Your task to perform on an android device: find snoozed emails in the gmail app Image 0: 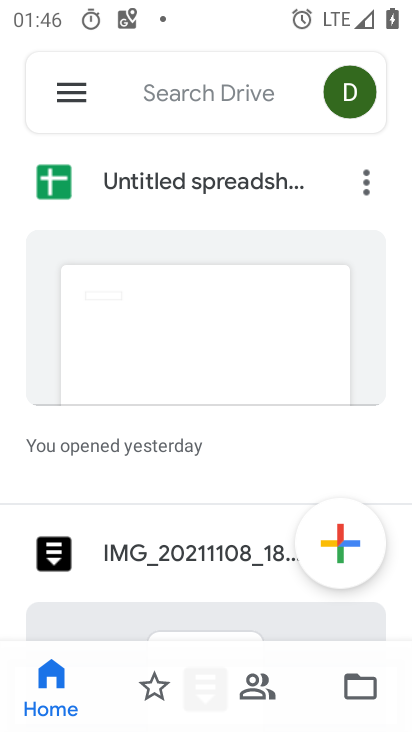
Step 0: press home button
Your task to perform on an android device: find snoozed emails in the gmail app Image 1: 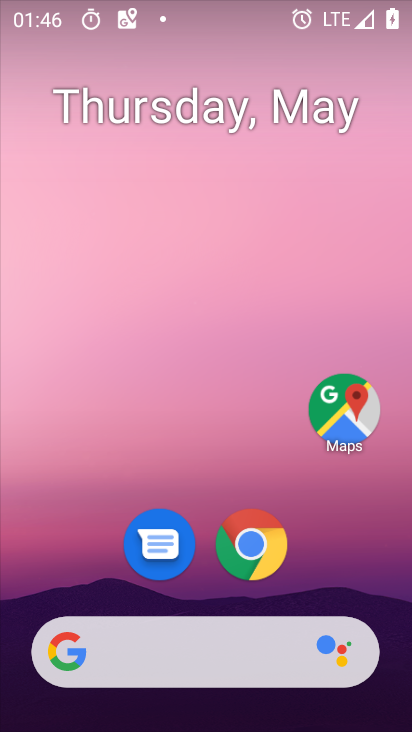
Step 1: drag from (358, 577) to (357, 292)
Your task to perform on an android device: find snoozed emails in the gmail app Image 2: 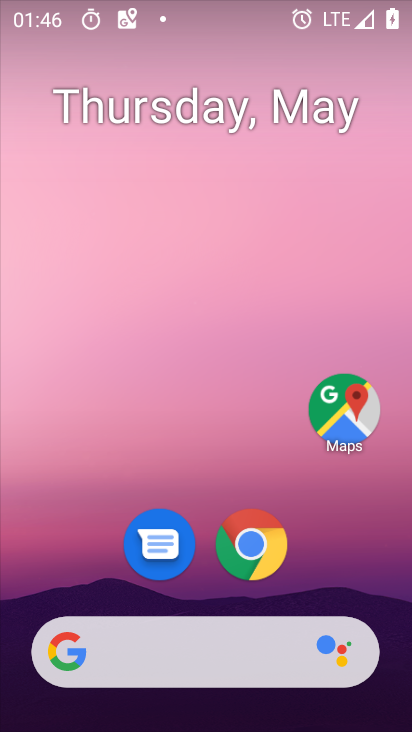
Step 2: drag from (361, 429) to (350, 130)
Your task to perform on an android device: find snoozed emails in the gmail app Image 3: 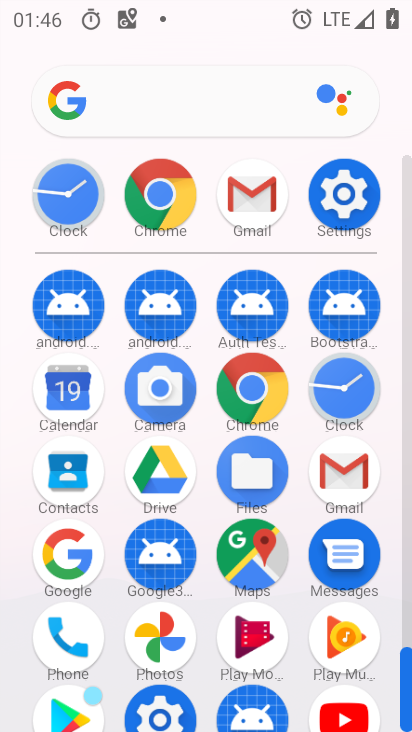
Step 3: click (258, 208)
Your task to perform on an android device: find snoozed emails in the gmail app Image 4: 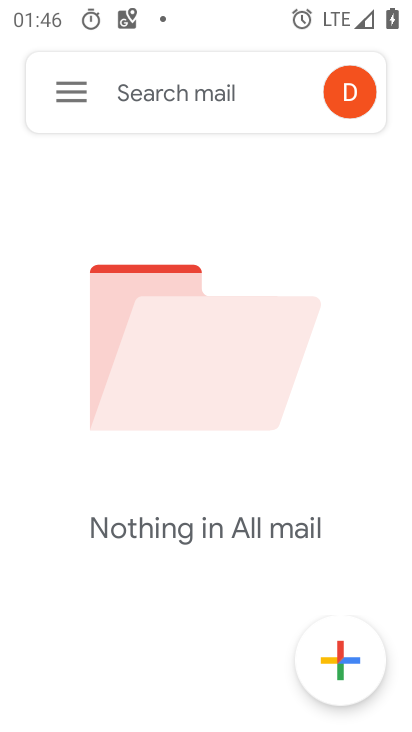
Step 4: click (52, 75)
Your task to perform on an android device: find snoozed emails in the gmail app Image 5: 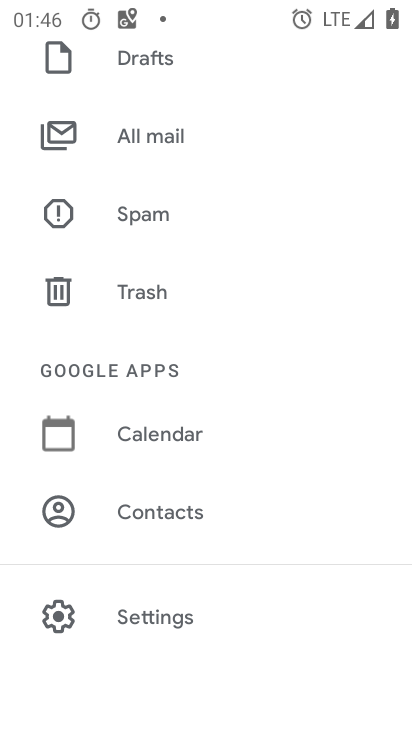
Step 5: drag from (291, 477) to (314, 326)
Your task to perform on an android device: find snoozed emails in the gmail app Image 6: 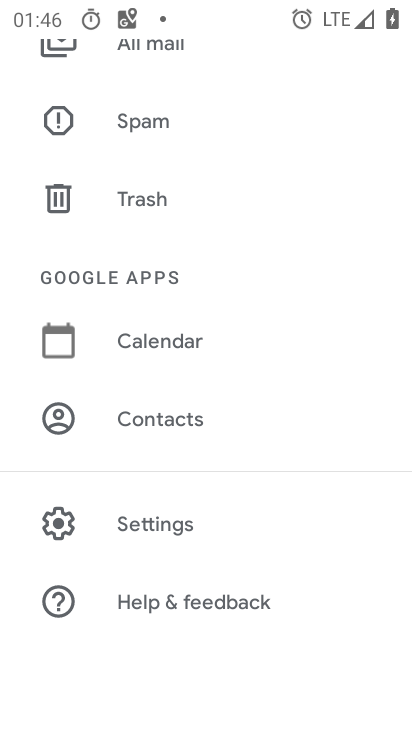
Step 6: drag from (310, 301) to (310, 391)
Your task to perform on an android device: find snoozed emails in the gmail app Image 7: 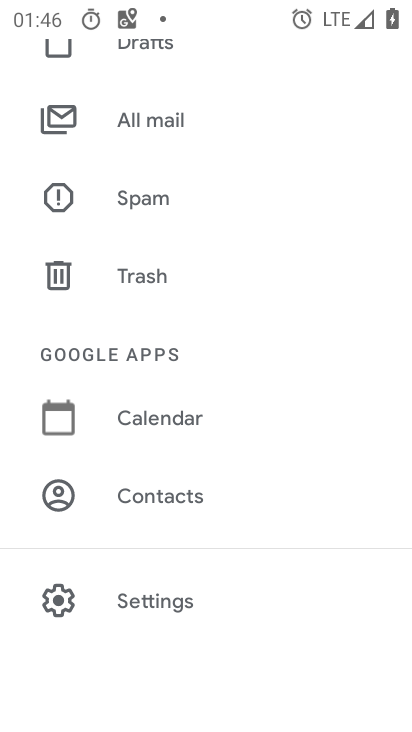
Step 7: drag from (293, 323) to (297, 407)
Your task to perform on an android device: find snoozed emails in the gmail app Image 8: 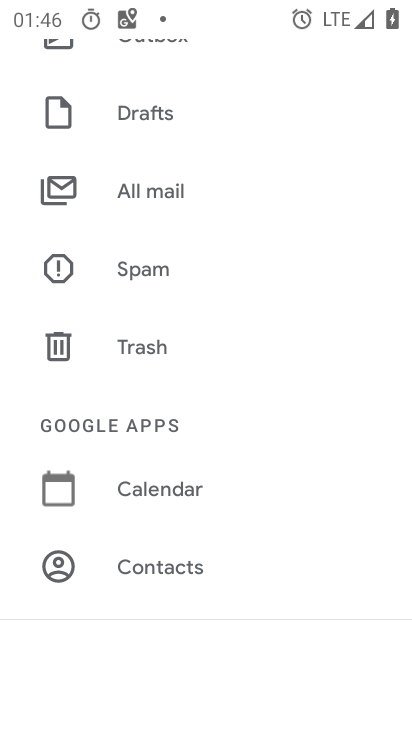
Step 8: drag from (322, 256) to (300, 410)
Your task to perform on an android device: find snoozed emails in the gmail app Image 9: 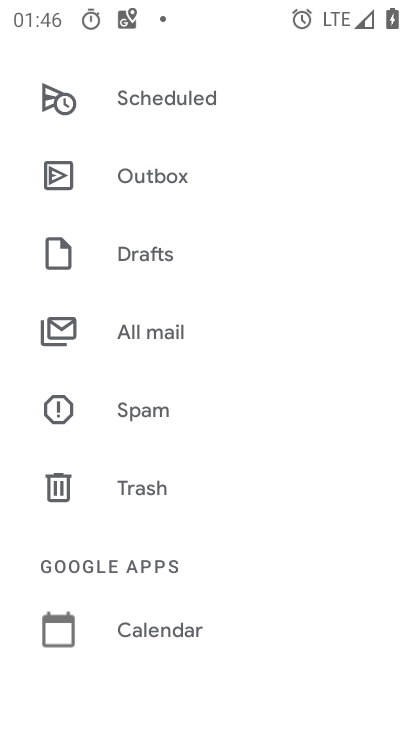
Step 9: drag from (322, 272) to (311, 377)
Your task to perform on an android device: find snoozed emails in the gmail app Image 10: 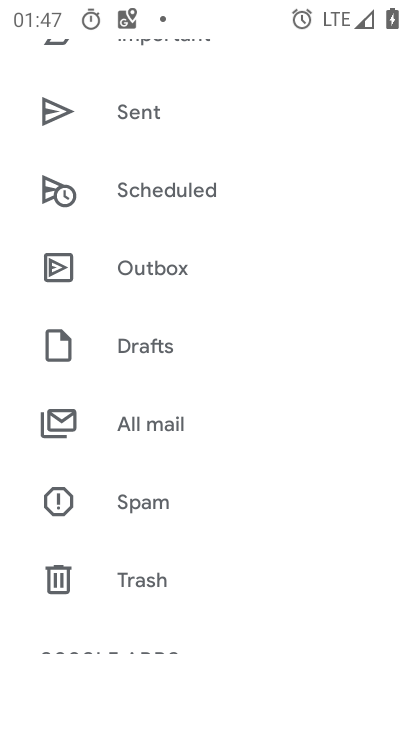
Step 10: drag from (313, 257) to (306, 343)
Your task to perform on an android device: find snoozed emails in the gmail app Image 11: 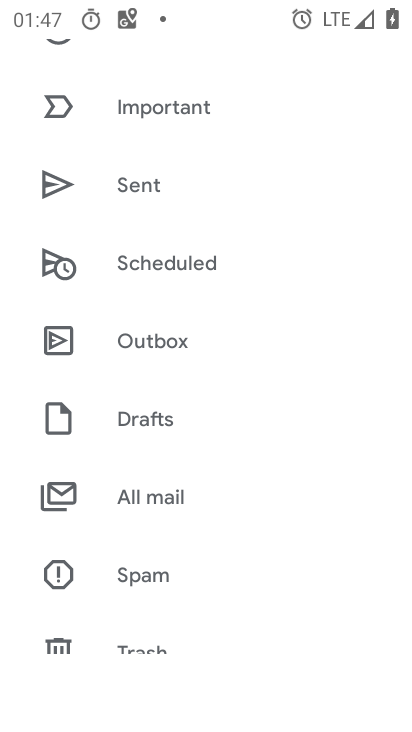
Step 11: drag from (312, 256) to (308, 313)
Your task to perform on an android device: find snoozed emails in the gmail app Image 12: 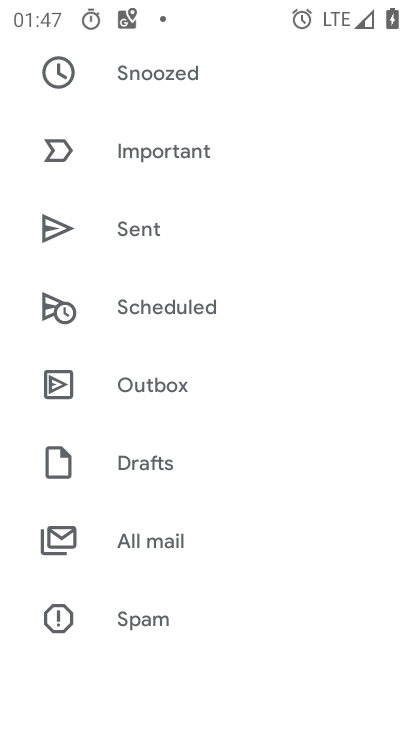
Step 12: drag from (304, 274) to (302, 349)
Your task to perform on an android device: find snoozed emails in the gmail app Image 13: 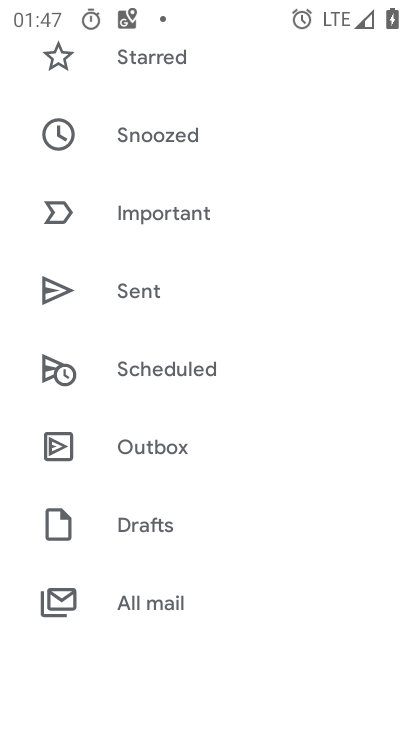
Step 13: drag from (298, 261) to (285, 367)
Your task to perform on an android device: find snoozed emails in the gmail app Image 14: 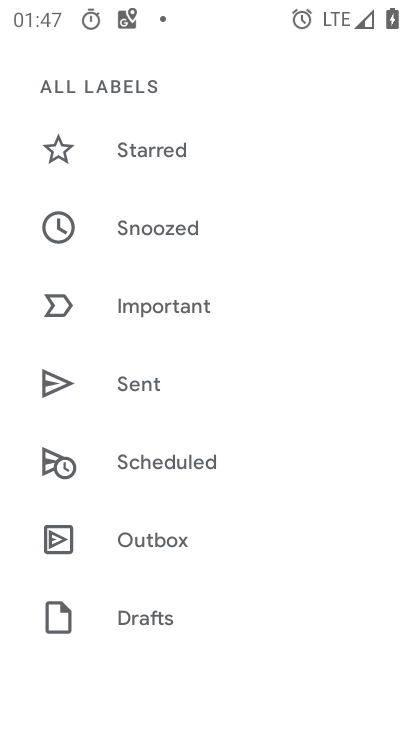
Step 14: drag from (310, 279) to (300, 404)
Your task to perform on an android device: find snoozed emails in the gmail app Image 15: 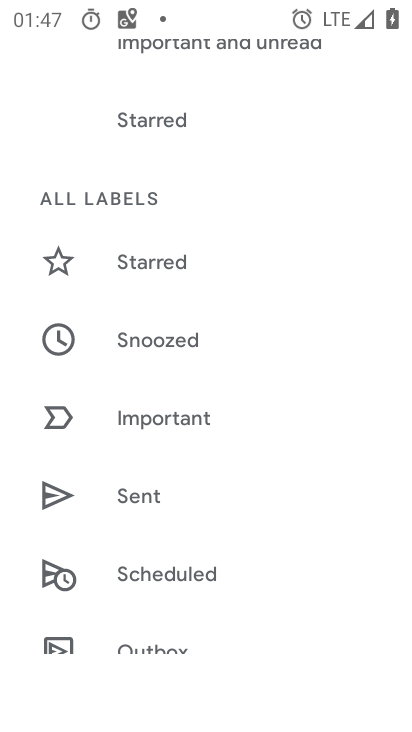
Step 15: drag from (317, 281) to (311, 430)
Your task to perform on an android device: find snoozed emails in the gmail app Image 16: 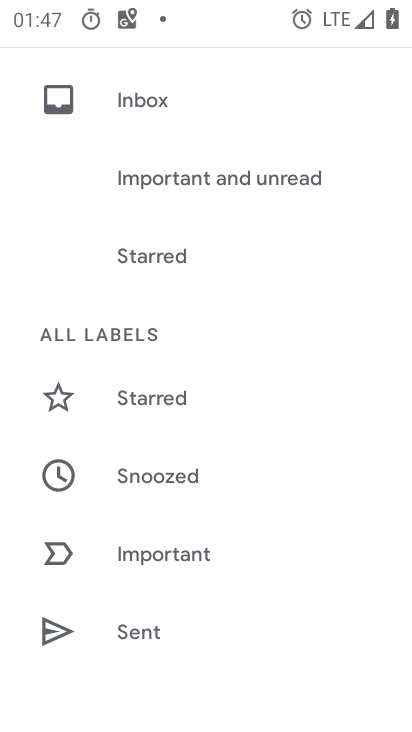
Step 16: drag from (310, 287) to (299, 398)
Your task to perform on an android device: find snoozed emails in the gmail app Image 17: 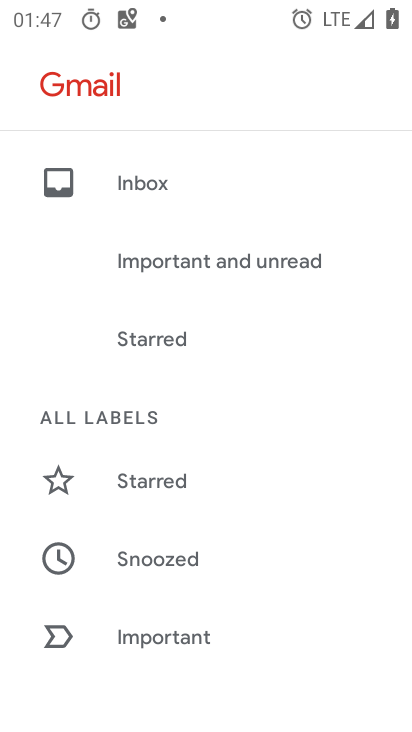
Step 17: drag from (253, 390) to (273, 258)
Your task to perform on an android device: find snoozed emails in the gmail app Image 18: 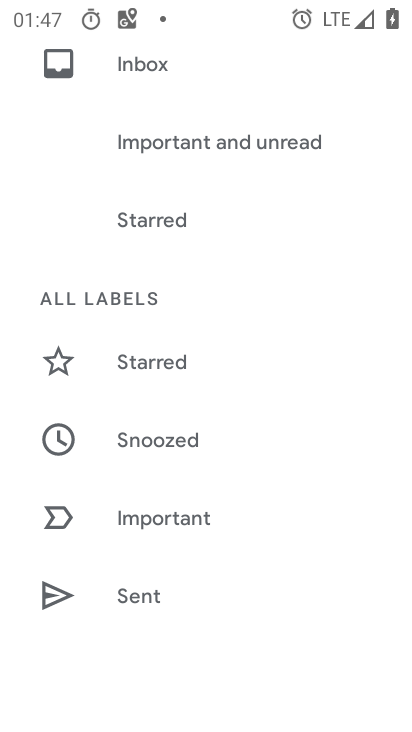
Step 18: drag from (286, 435) to (300, 344)
Your task to perform on an android device: find snoozed emails in the gmail app Image 19: 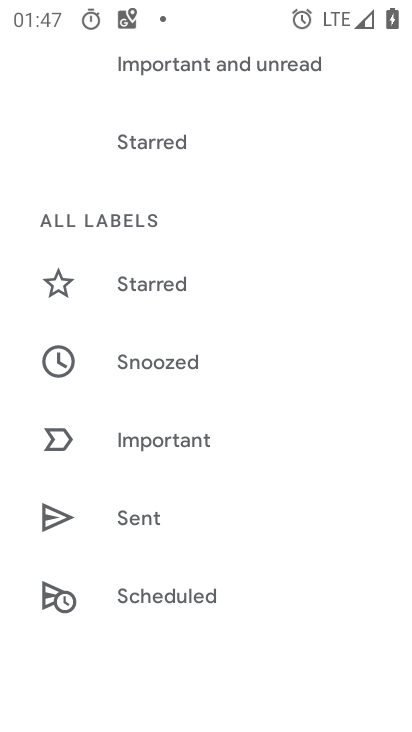
Step 19: click (259, 386)
Your task to perform on an android device: find snoozed emails in the gmail app Image 20: 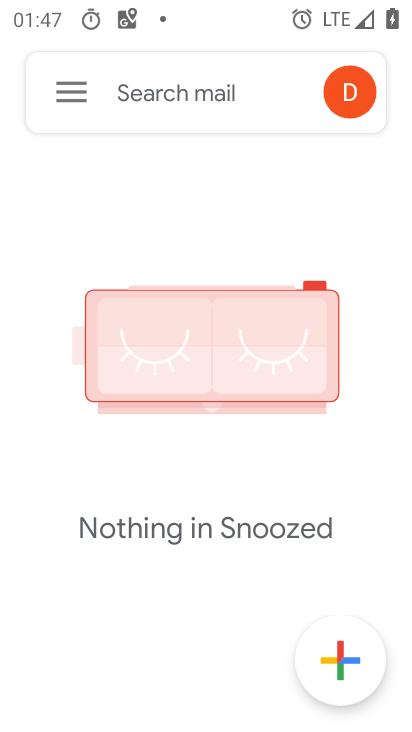
Step 20: task complete